Your task to perform on an android device: move a message to another label in the gmail app Image 0: 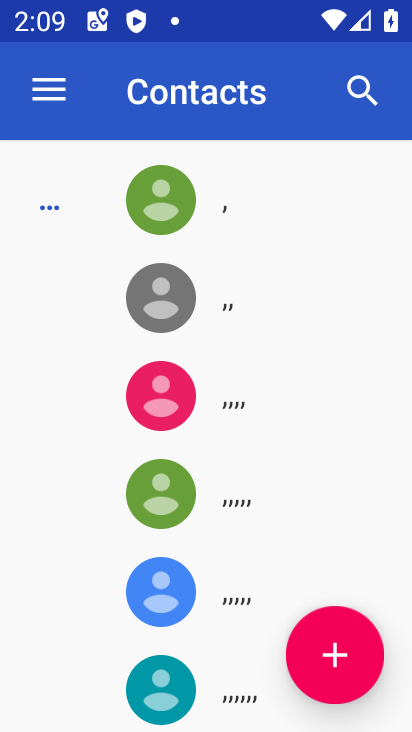
Step 0: press back button
Your task to perform on an android device: move a message to another label in the gmail app Image 1: 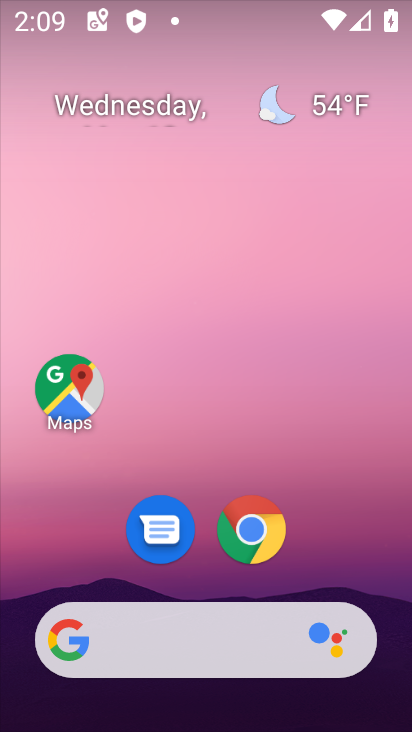
Step 1: drag from (164, 511) to (230, 43)
Your task to perform on an android device: move a message to another label in the gmail app Image 2: 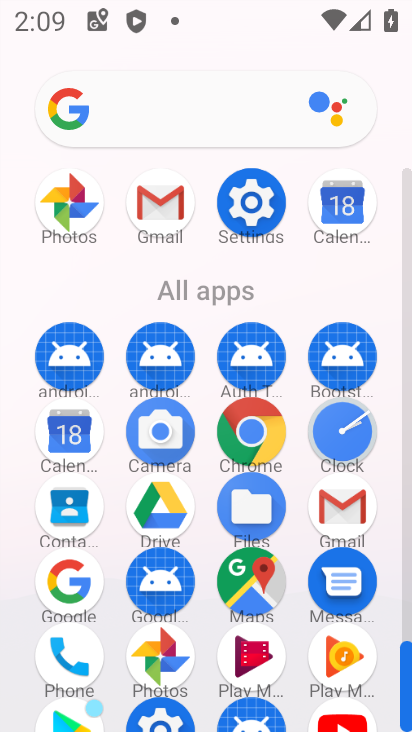
Step 2: click (149, 204)
Your task to perform on an android device: move a message to another label in the gmail app Image 3: 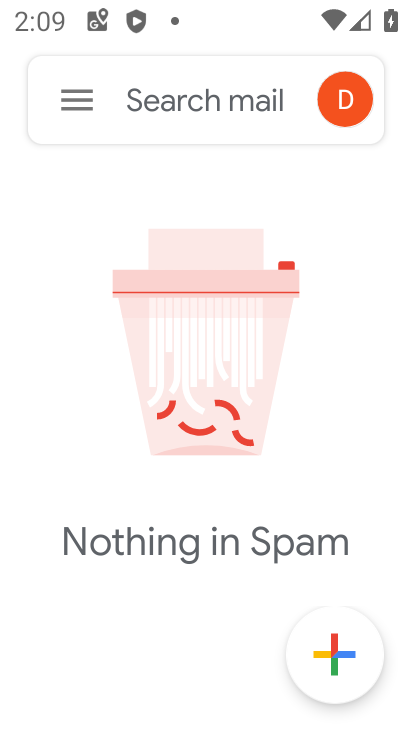
Step 3: click (81, 100)
Your task to perform on an android device: move a message to another label in the gmail app Image 4: 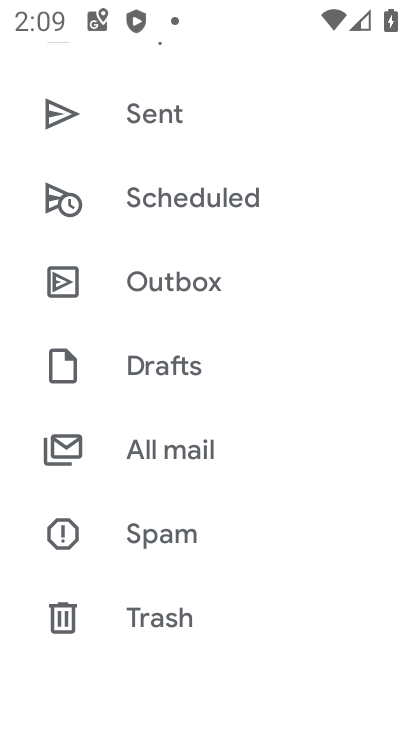
Step 4: click (159, 457)
Your task to perform on an android device: move a message to another label in the gmail app Image 5: 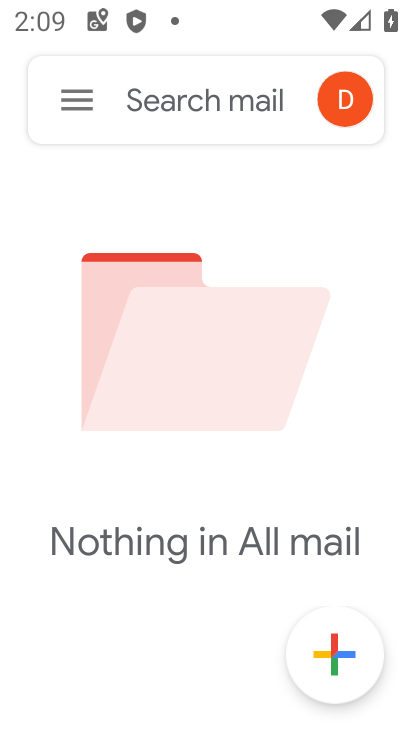
Step 5: task complete